Your task to perform on an android device: Add "asus rog" to the cart on walmart.com Image 0: 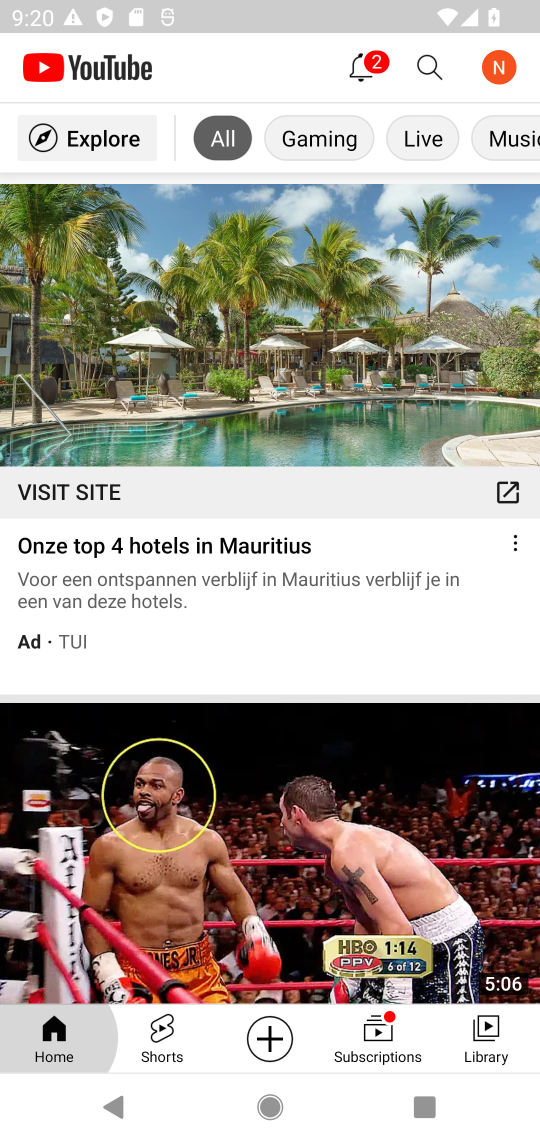
Step 0: press home button
Your task to perform on an android device: Add "asus rog" to the cart on walmart.com Image 1: 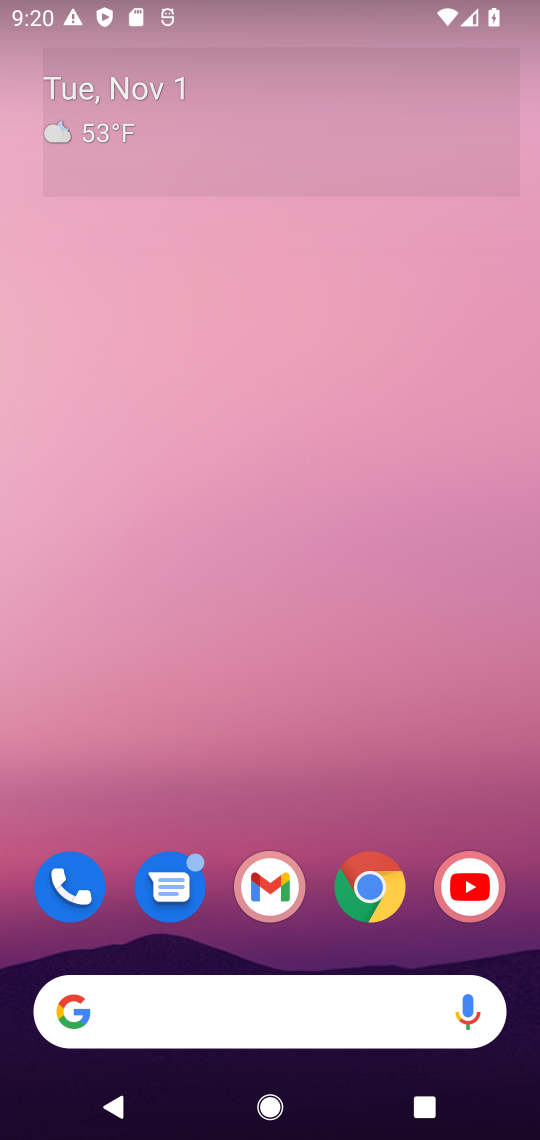
Step 1: drag from (174, 952) to (180, 435)
Your task to perform on an android device: Add "asus rog" to the cart on walmart.com Image 2: 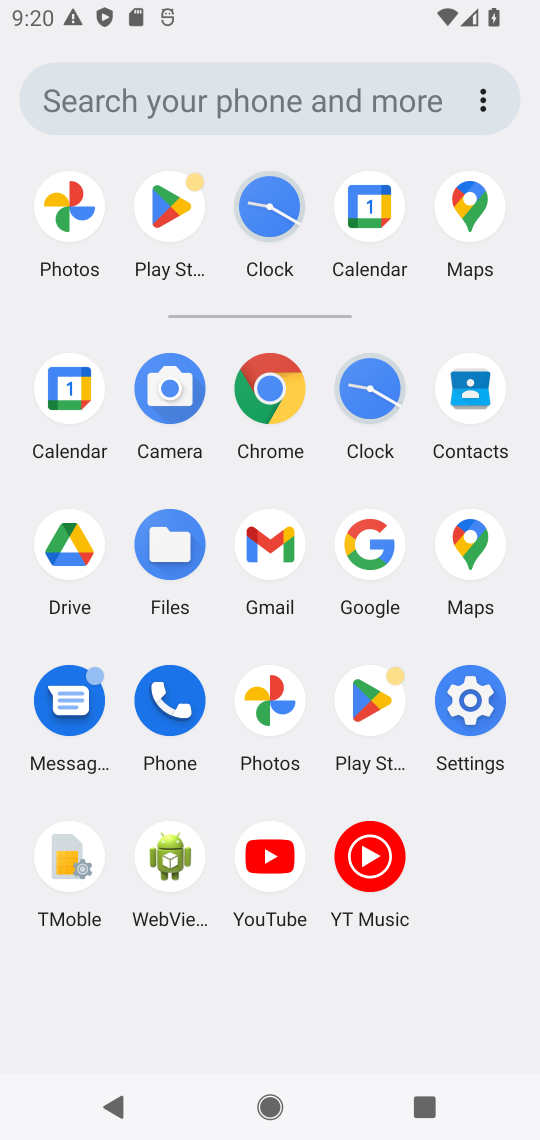
Step 2: click (369, 537)
Your task to perform on an android device: Add "asus rog" to the cart on walmart.com Image 3: 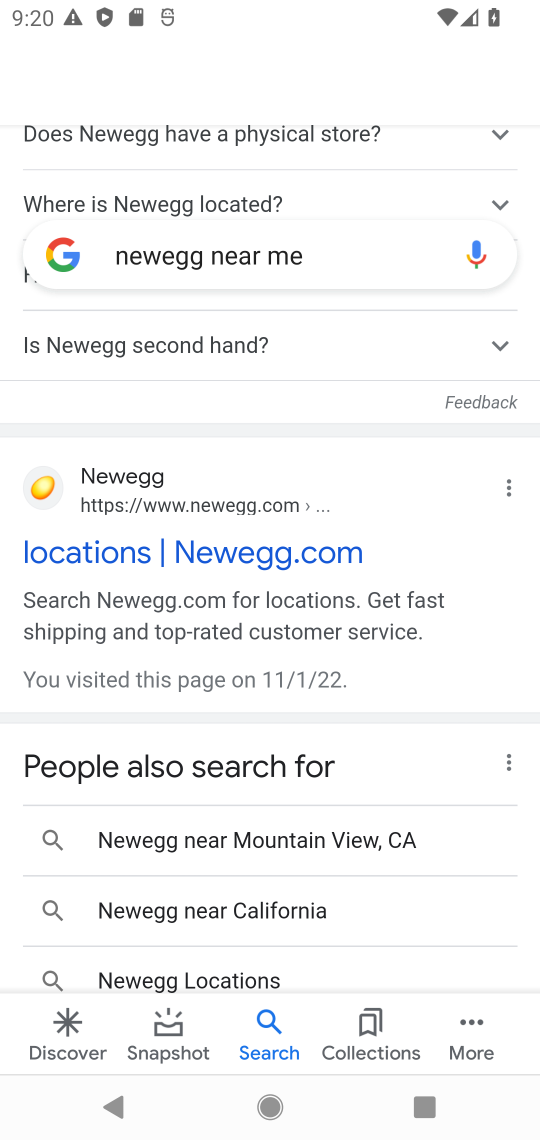
Step 3: click (222, 263)
Your task to perform on an android device: Add "asus rog" to the cart on walmart.com Image 4: 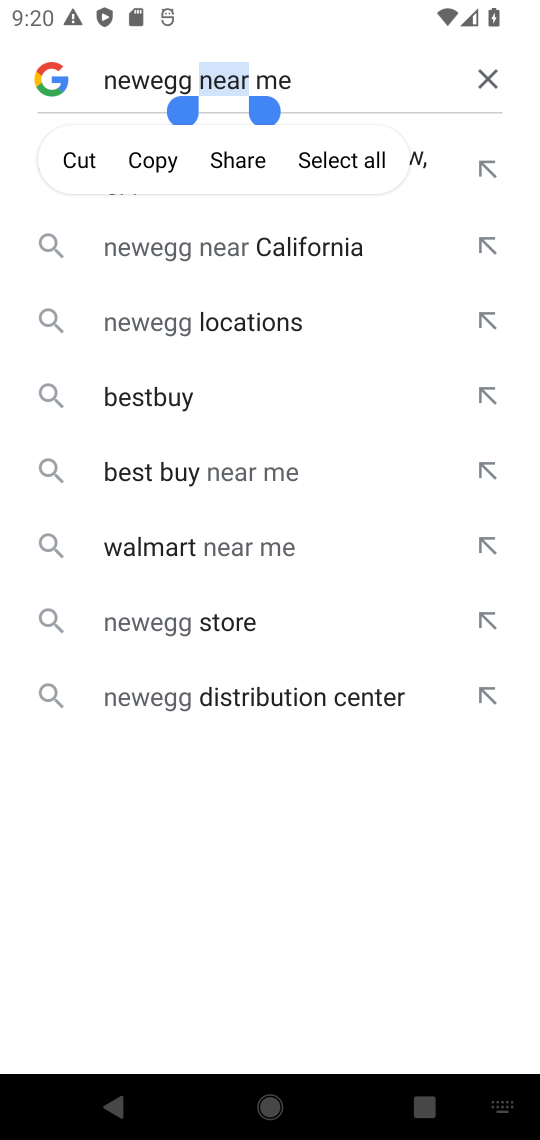
Step 4: click (485, 75)
Your task to perform on an android device: Add "asus rog" to the cart on walmart.com Image 5: 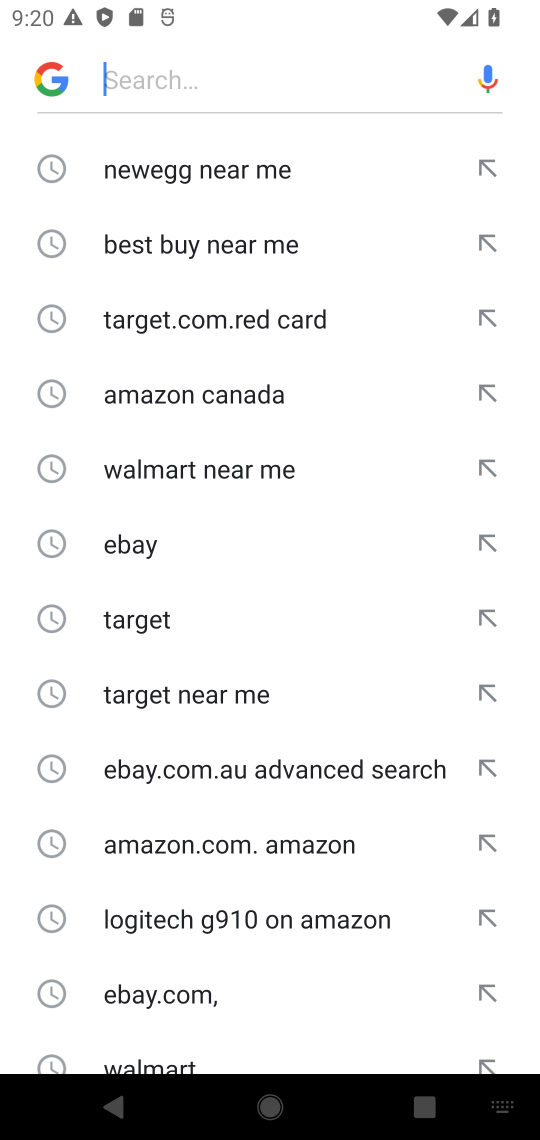
Step 5: click (186, 80)
Your task to perform on an android device: Add "asus rog" to the cart on walmart.com Image 6: 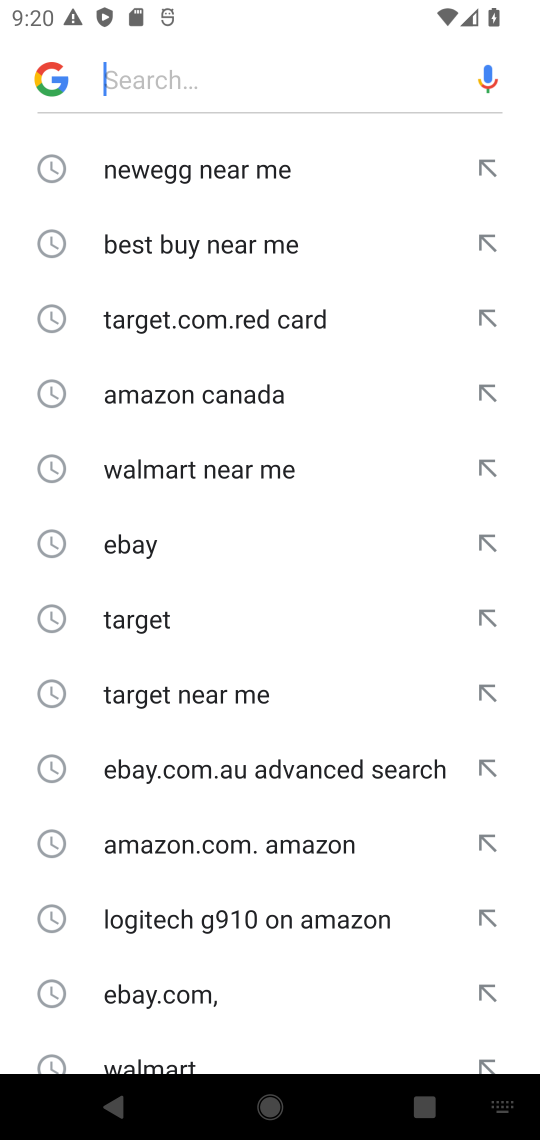
Step 6: type "walmart "
Your task to perform on an android device: Add "asus rog" to the cart on walmart.com Image 7: 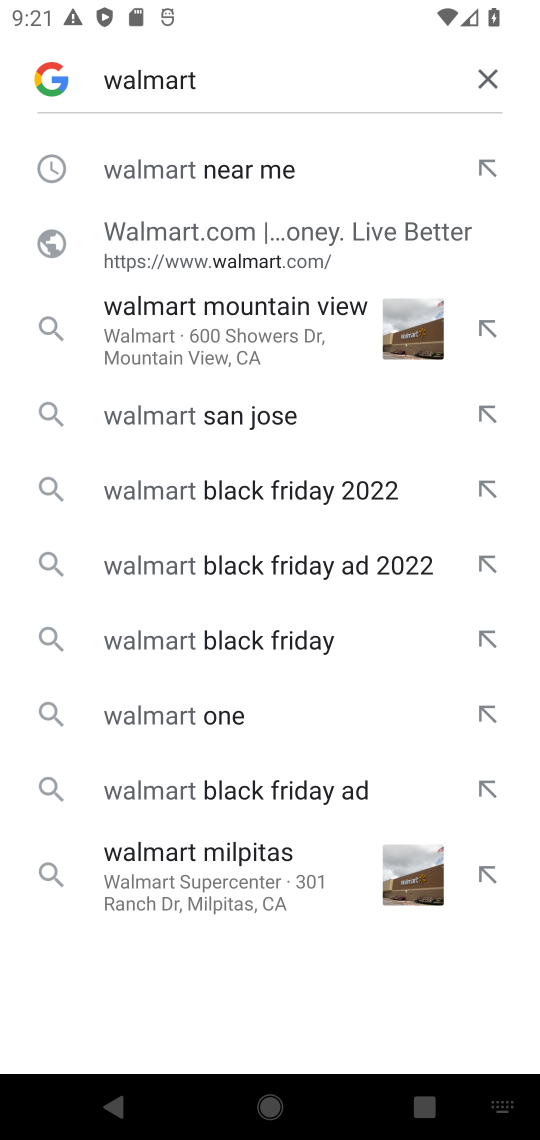
Step 7: click (191, 167)
Your task to perform on an android device: Add "asus rog" to the cart on walmart.com Image 8: 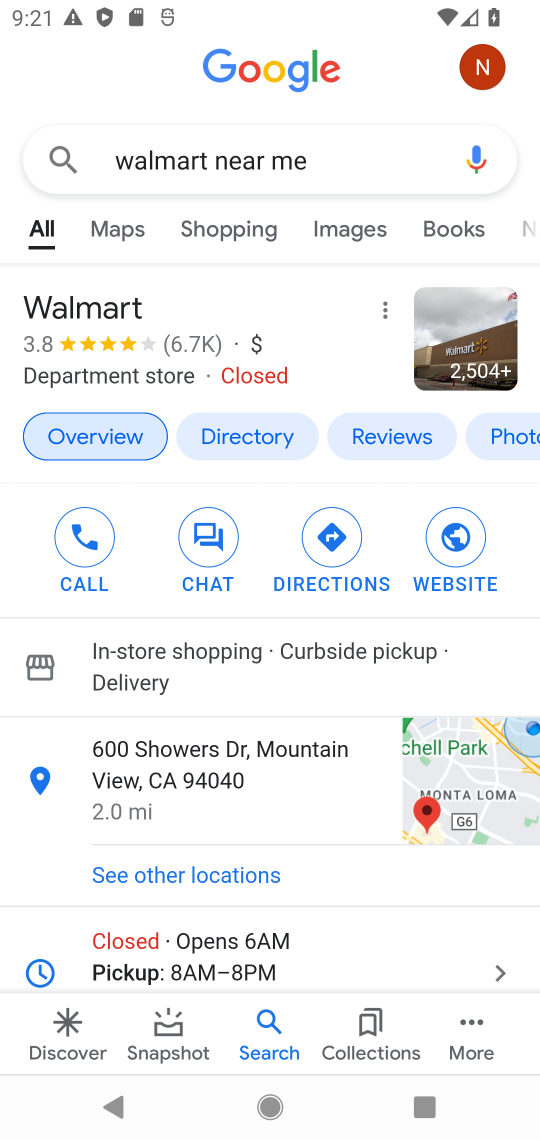
Step 8: drag from (199, 870) to (285, 341)
Your task to perform on an android device: Add "asus rog" to the cart on walmart.com Image 9: 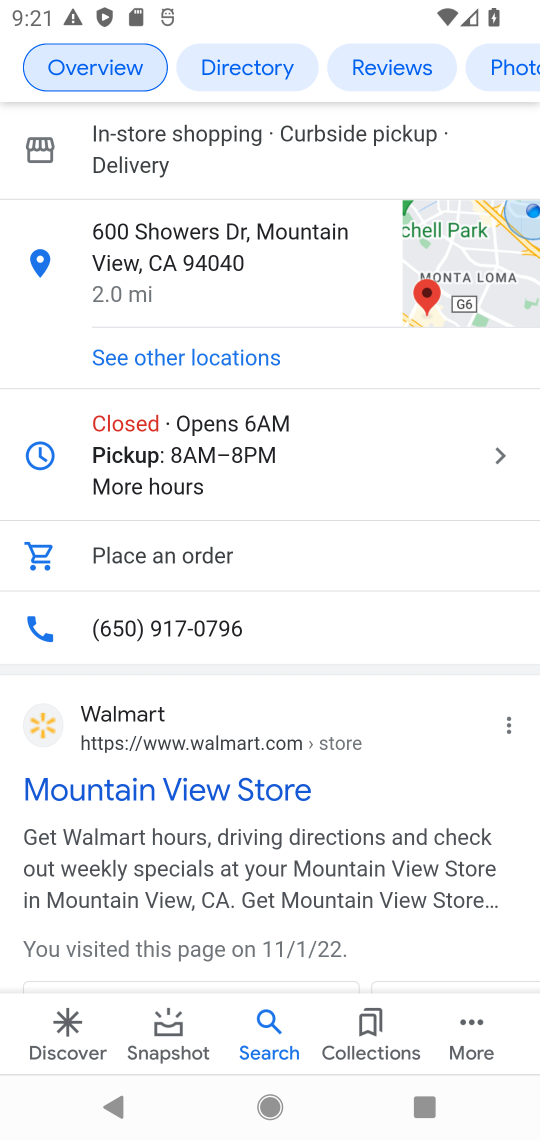
Step 9: click (37, 722)
Your task to perform on an android device: Add "asus rog" to the cart on walmart.com Image 10: 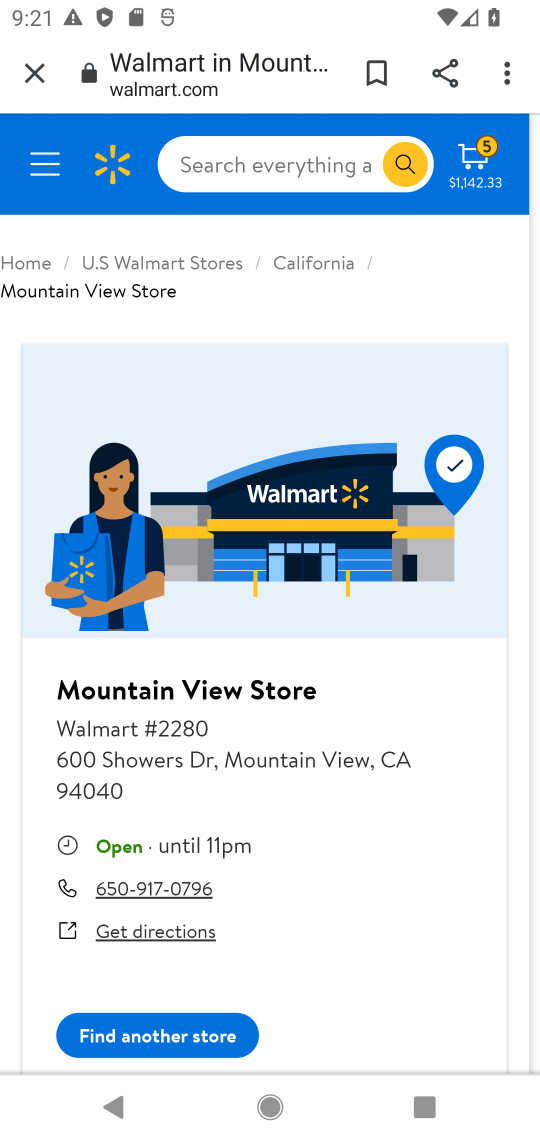
Step 10: click (256, 165)
Your task to perform on an android device: Add "asus rog" to the cart on walmart.com Image 11: 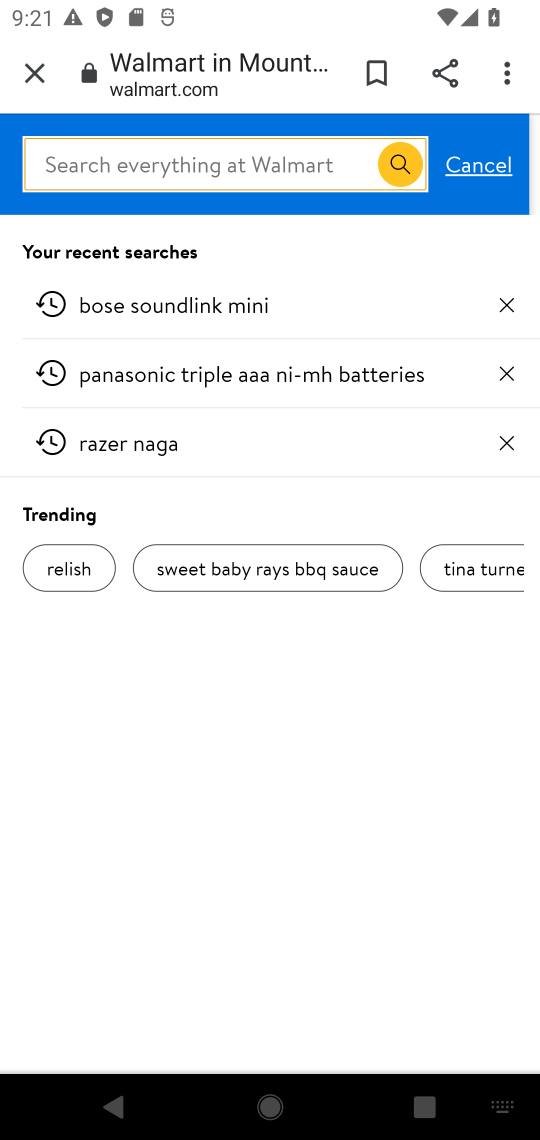
Step 11: click (238, 154)
Your task to perform on an android device: Add "asus rog" to the cart on walmart.com Image 12: 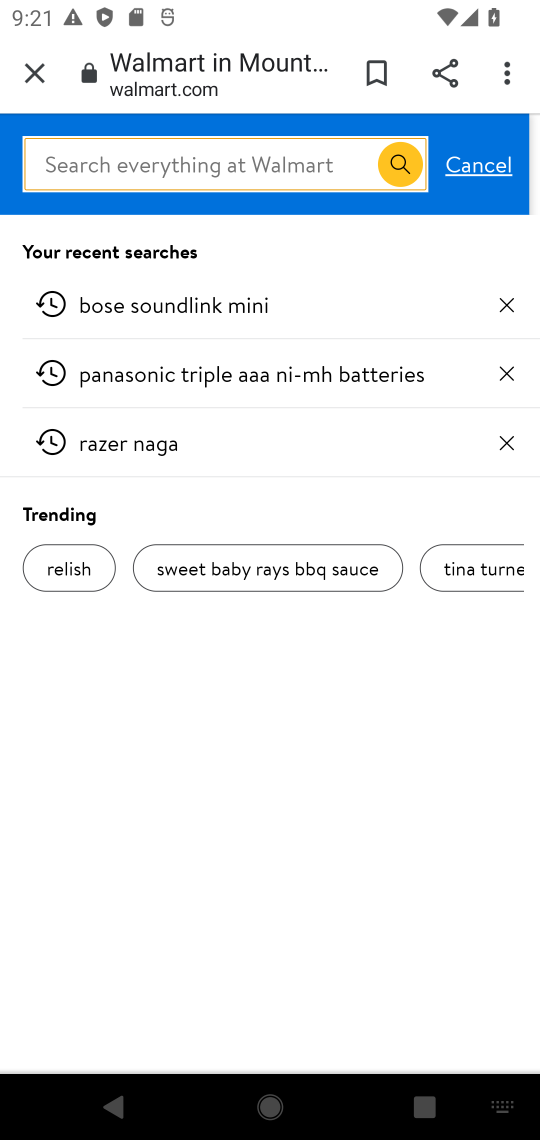
Step 12: type "asus rog "
Your task to perform on an android device: Add "asus rog" to the cart on walmart.com Image 13: 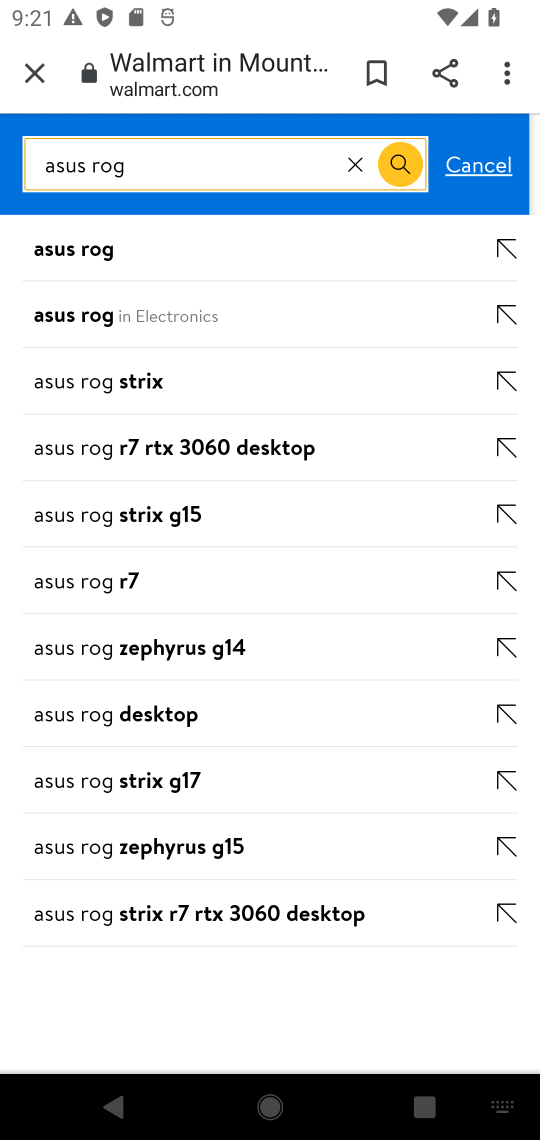
Step 13: click (68, 233)
Your task to perform on an android device: Add "asus rog" to the cart on walmart.com Image 14: 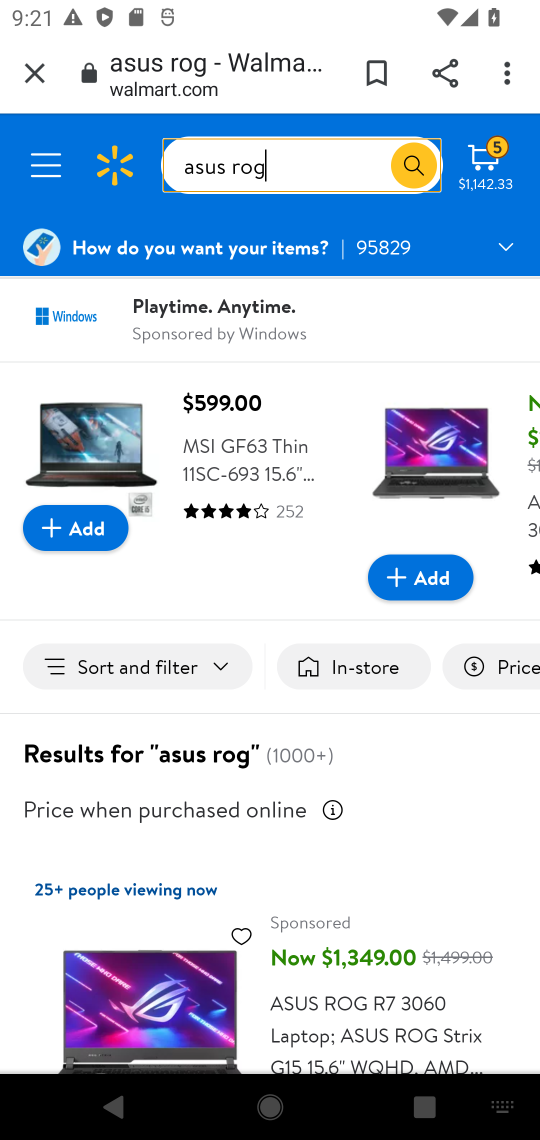
Step 14: drag from (349, 884) to (346, 453)
Your task to perform on an android device: Add "asus rog" to the cart on walmart.com Image 15: 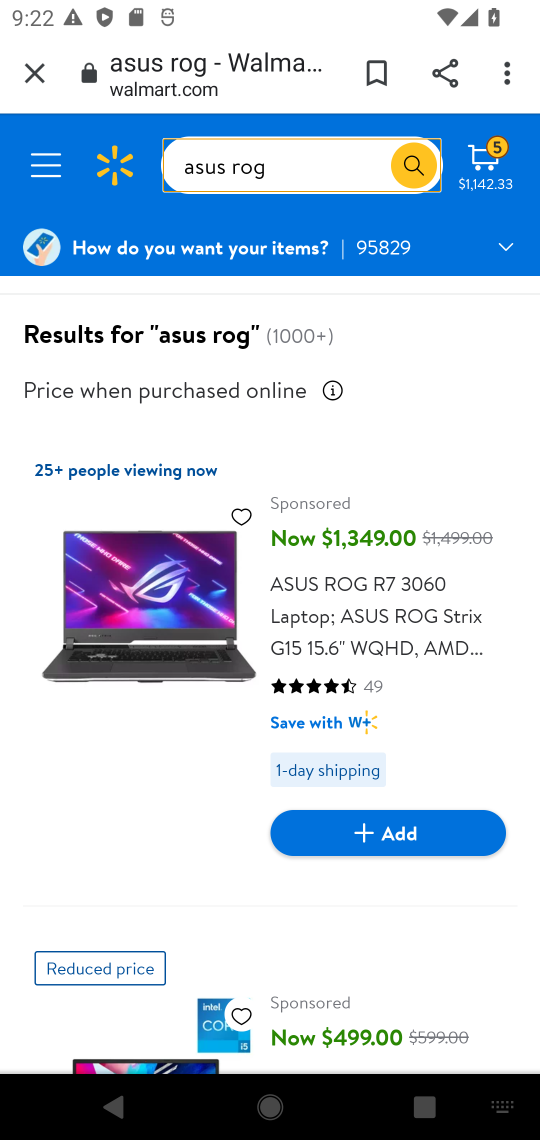
Step 15: click (370, 825)
Your task to perform on an android device: Add "asus rog" to the cart on walmart.com Image 16: 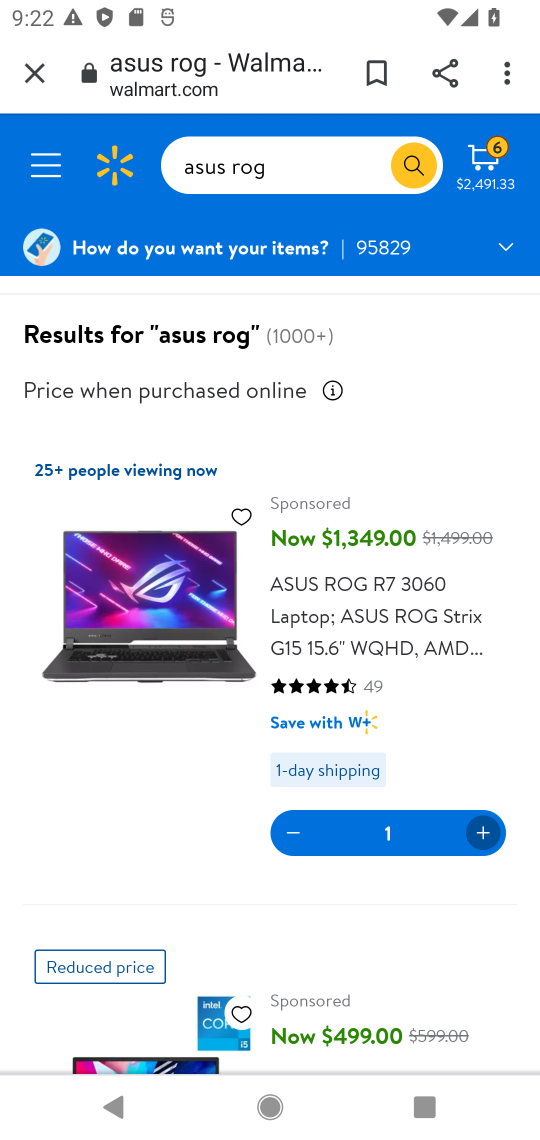
Step 16: task complete